Your task to perform on an android device: Open Maps and search for coffee Image 0: 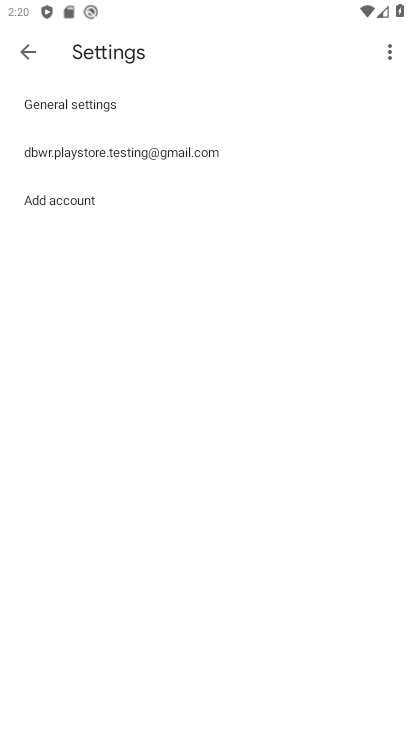
Step 0: press home button
Your task to perform on an android device: Open Maps and search for coffee Image 1: 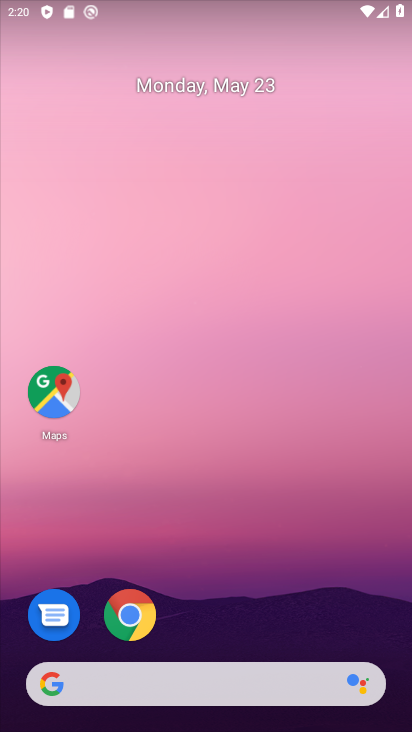
Step 1: click (52, 394)
Your task to perform on an android device: Open Maps and search for coffee Image 2: 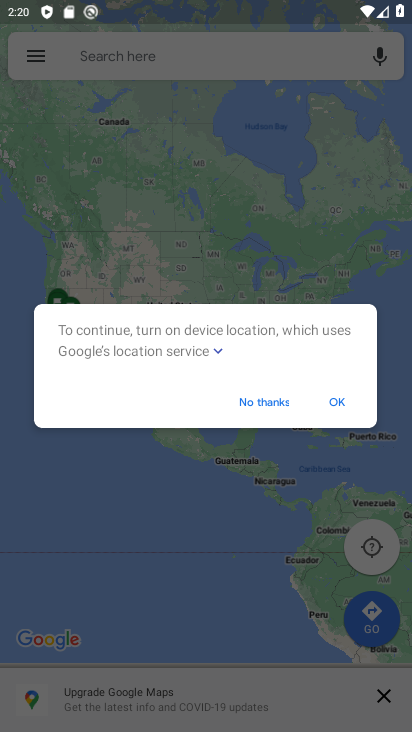
Step 2: click (252, 401)
Your task to perform on an android device: Open Maps and search for coffee Image 3: 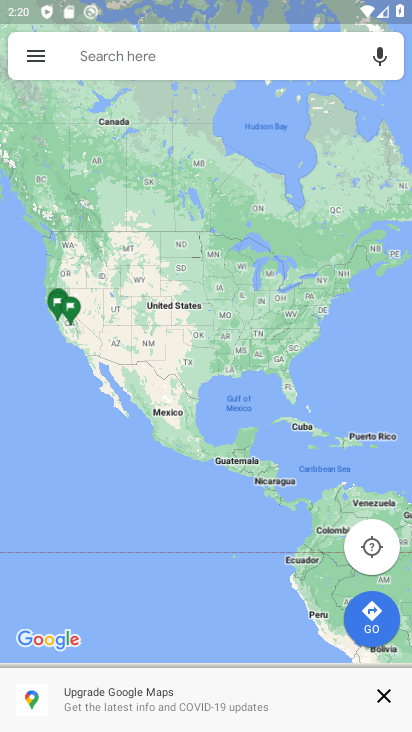
Step 3: click (97, 57)
Your task to perform on an android device: Open Maps and search for coffee Image 4: 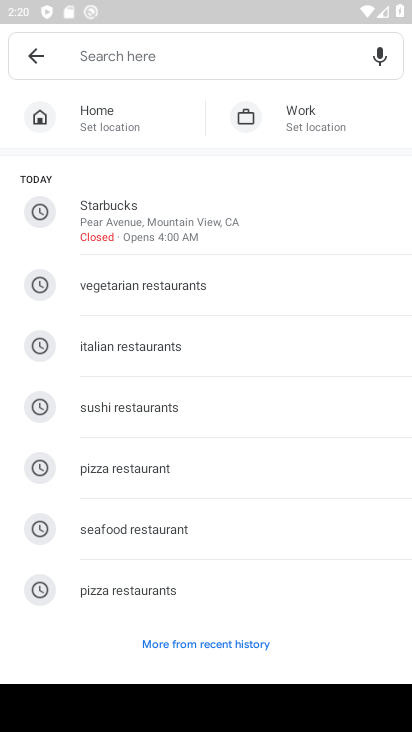
Step 4: type "coffee"
Your task to perform on an android device: Open Maps and search for coffee Image 5: 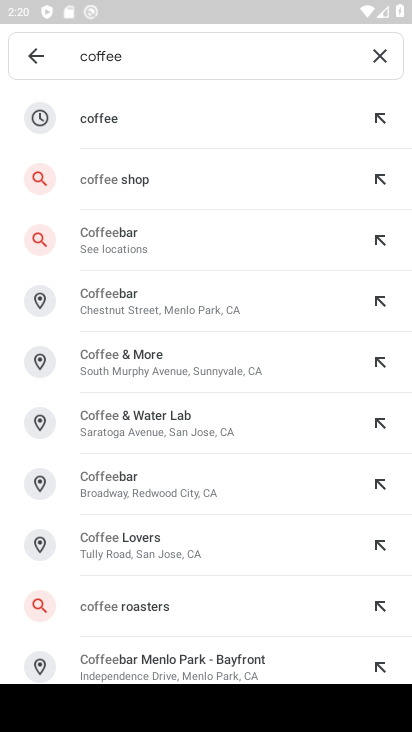
Step 5: click (97, 123)
Your task to perform on an android device: Open Maps and search for coffee Image 6: 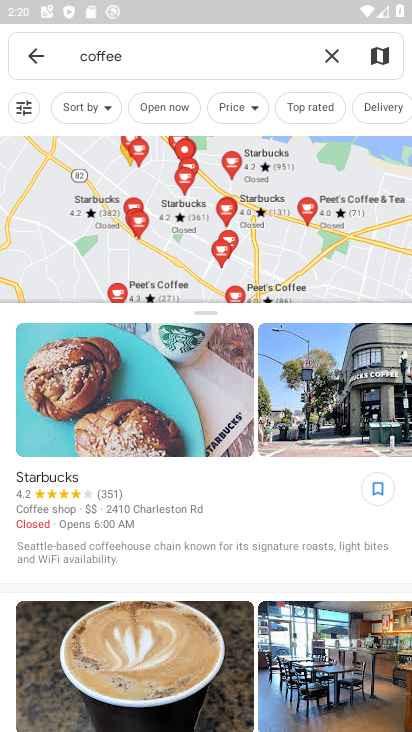
Step 6: task complete